Your task to perform on an android device: Open notification settings Image 0: 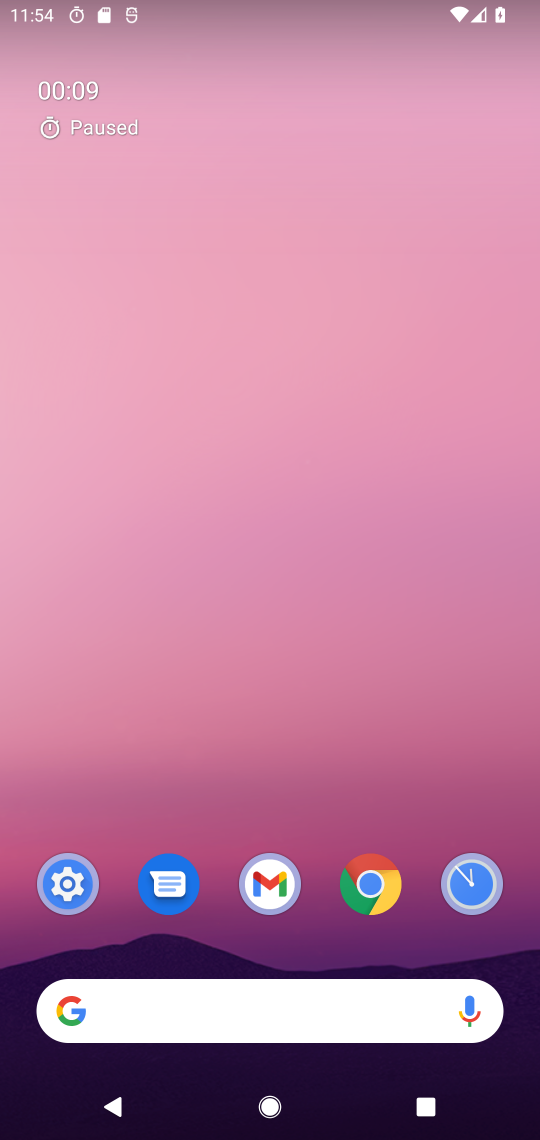
Step 0: click (55, 889)
Your task to perform on an android device: Open notification settings Image 1: 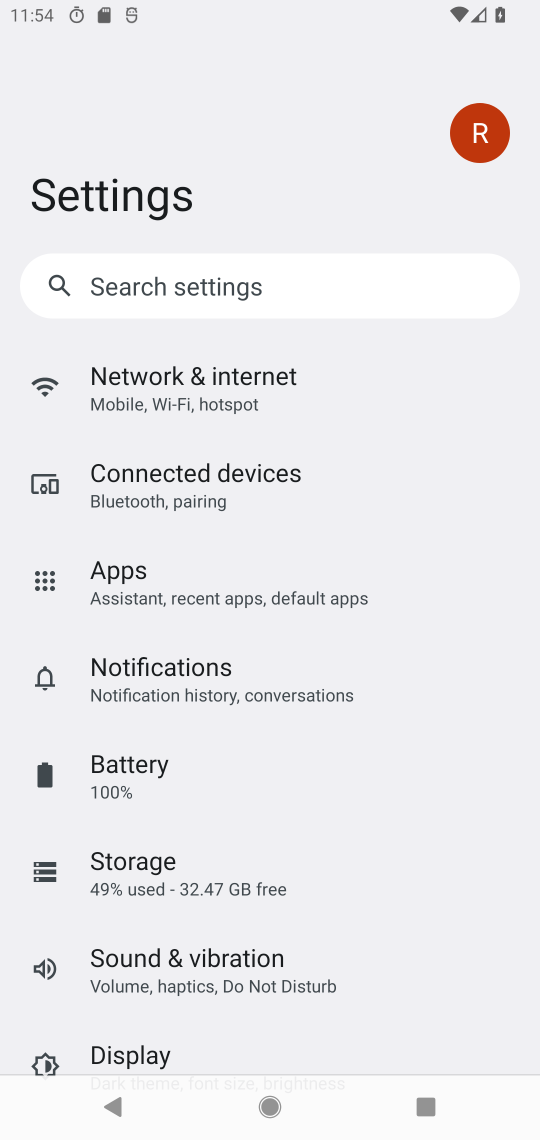
Step 1: click (218, 691)
Your task to perform on an android device: Open notification settings Image 2: 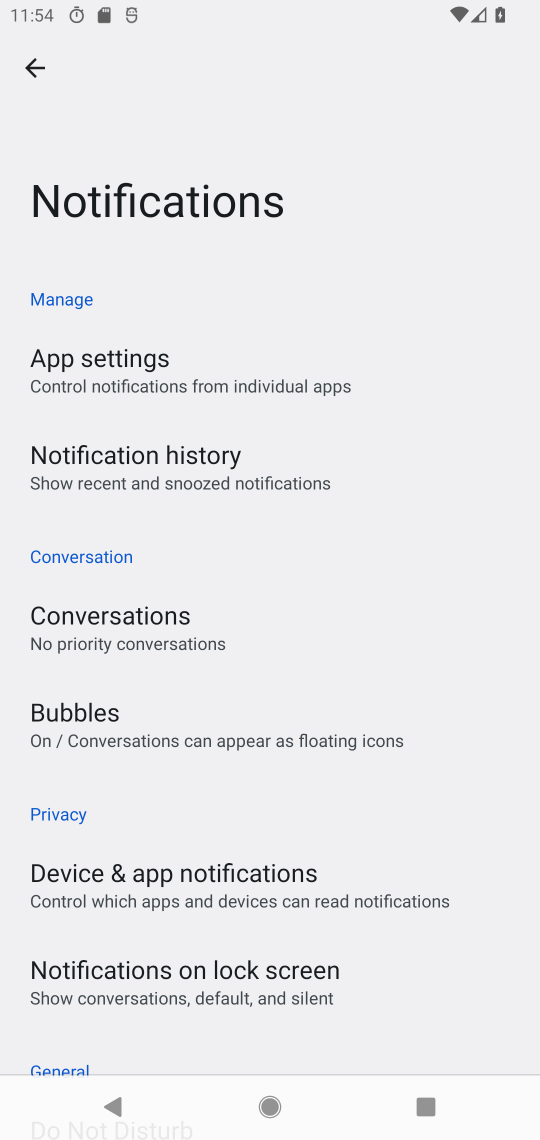
Step 2: task complete